Your task to perform on an android device: Is it going to rain tomorrow? Image 0: 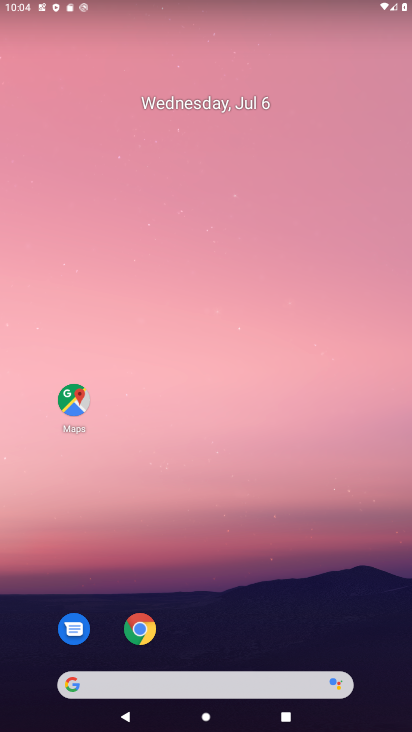
Step 0: drag from (197, 618) to (157, 165)
Your task to perform on an android device: Is it going to rain tomorrow? Image 1: 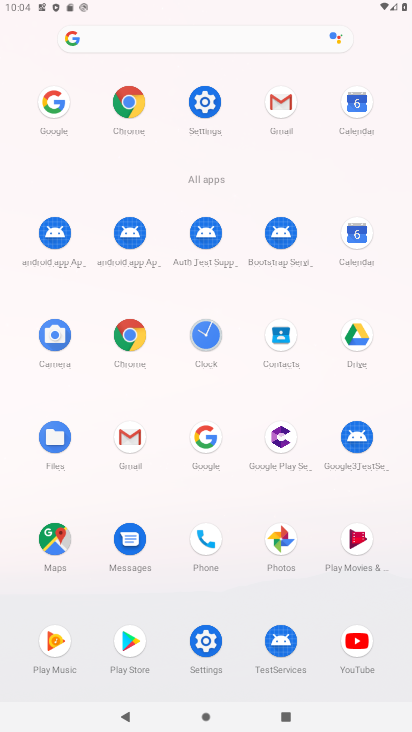
Step 1: click (50, 99)
Your task to perform on an android device: Is it going to rain tomorrow? Image 2: 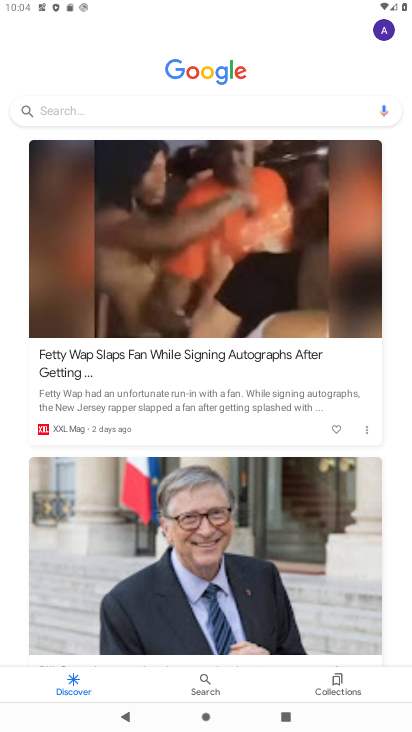
Step 2: click (127, 102)
Your task to perform on an android device: Is it going to rain tomorrow? Image 3: 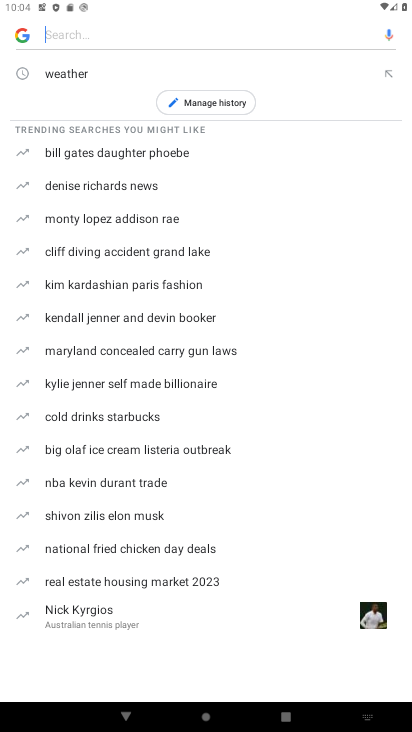
Step 3: type "Is it going to rain tomorrow?"
Your task to perform on an android device: Is it going to rain tomorrow? Image 4: 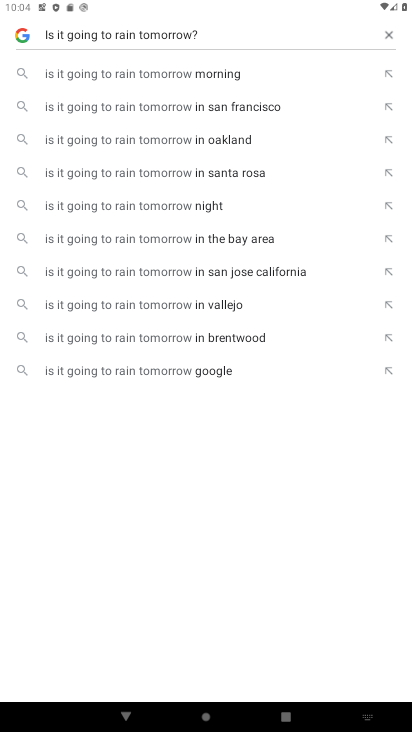
Step 4: click (179, 75)
Your task to perform on an android device: Is it going to rain tomorrow? Image 5: 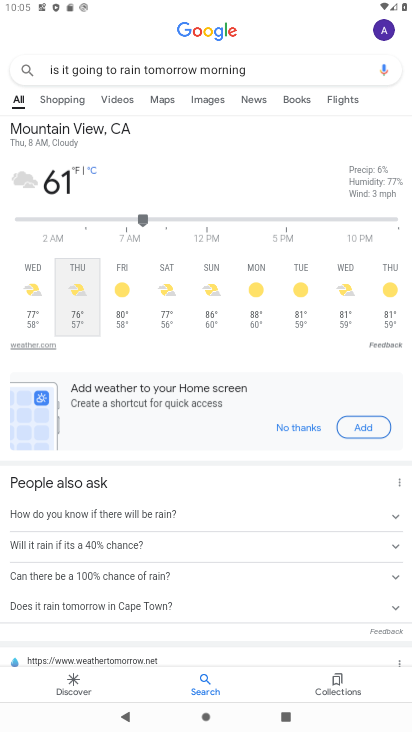
Step 5: task complete